Your task to perform on an android device: turn on wifi Image 0: 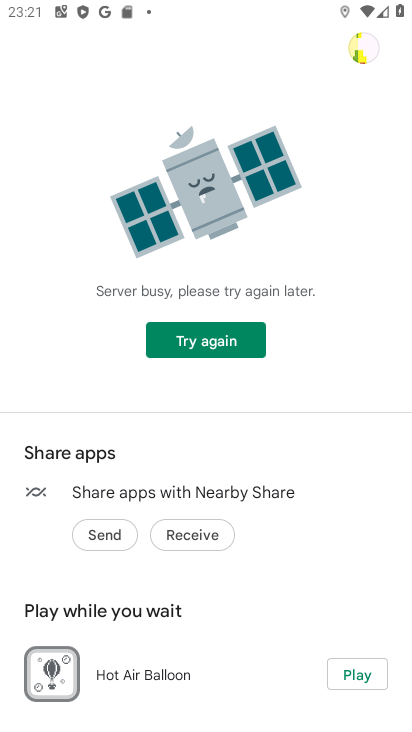
Step 0: press home button
Your task to perform on an android device: turn on wifi Image 1: 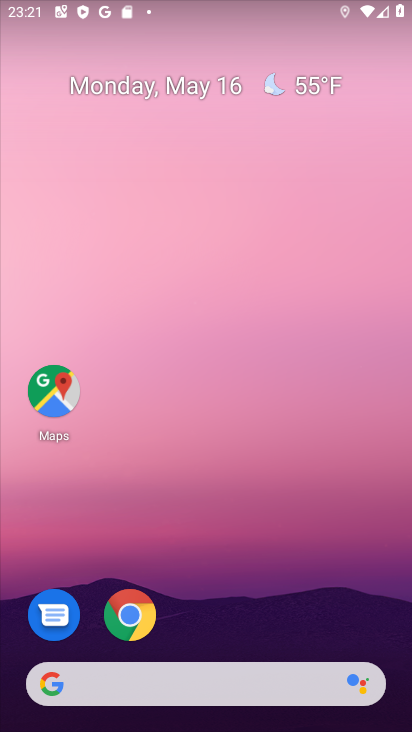
Step 1: drag from (209, 651) to (300, 29)
Your task to perform on an android device: turn on wifi Image 2: 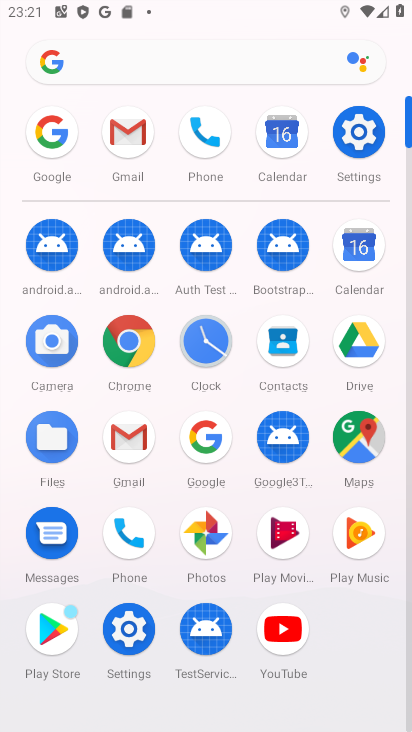
Step 2: click (347, 143)
Your task to perform on an android device: turn on wifi Image 3: 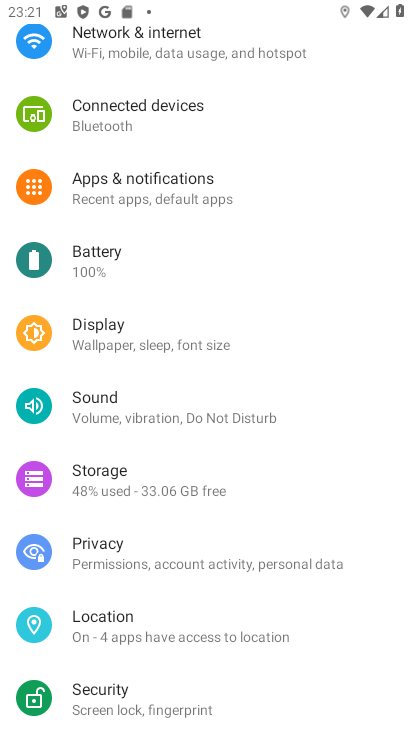
Step 3: click (219, 51)
Your task to perform on an android device: turn on wifi Image 4: 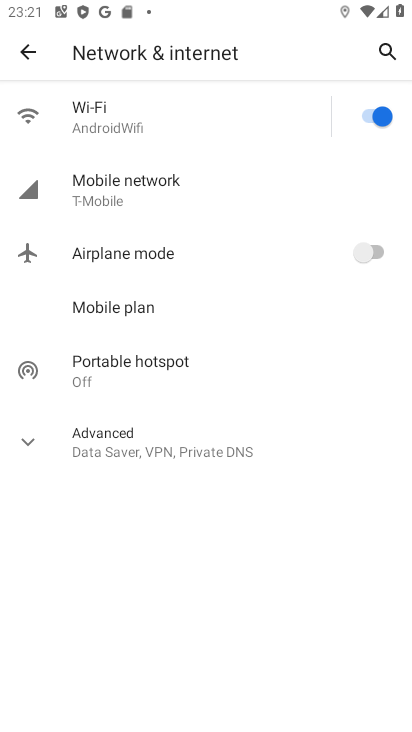
Step 4: click (267, 108)
Your task to perform on an android device: turn on wifi Image 5: 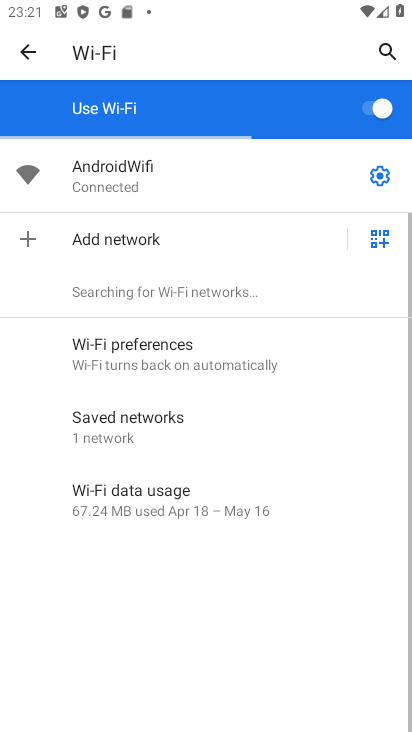
Step 5: task complete